Your task to perform on an android device: Open Android settings Image 0: 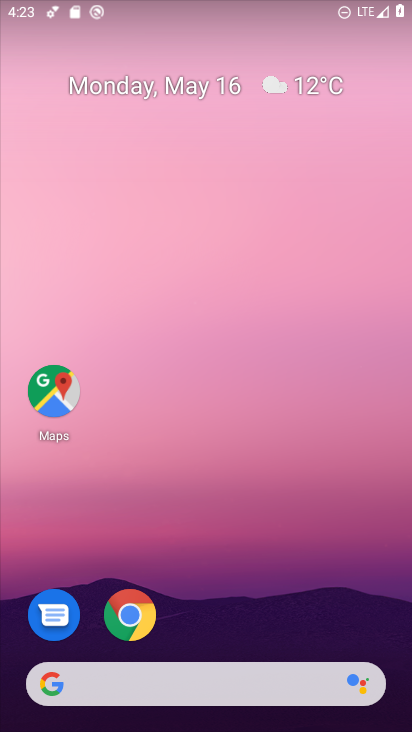
Step 0: drag from (220, 700) to (402, 21)
Your task to perform on an android device: Open Android settings Image 1: 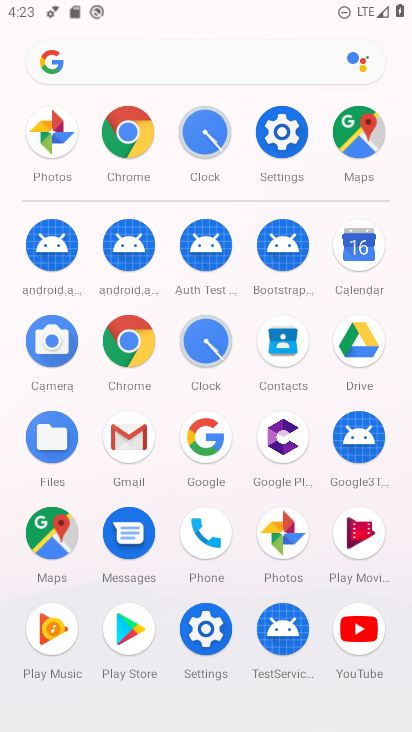
Step 1: click (285, 128)
Your task to perform on an android device: Open Android settings Image 2: 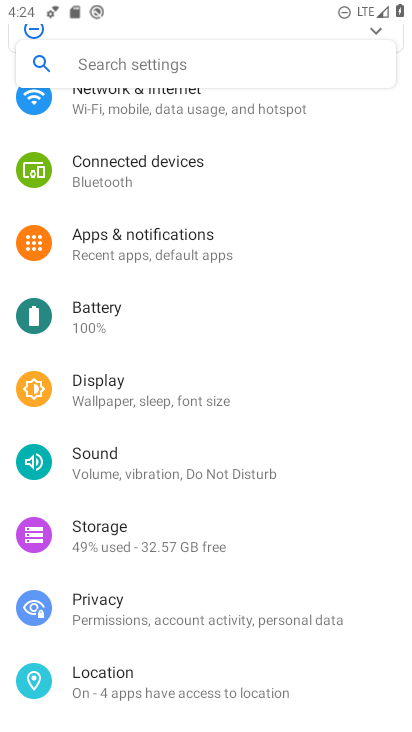
Step 2: task complete